Your task to perform on an android device: check storage Image 0: 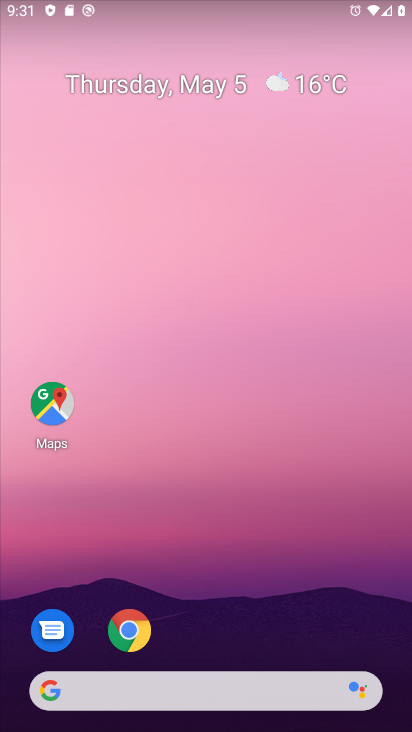
Step 0: drag from (278, 613) to (273, 81)
Your task to perform on an android device: check storage Image 1: 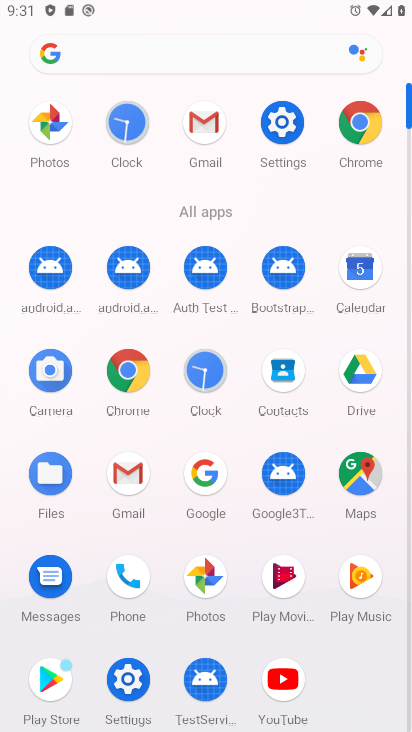
Step 1: click (272, 132)
Your task to perform on an android device: check storage Image 2: 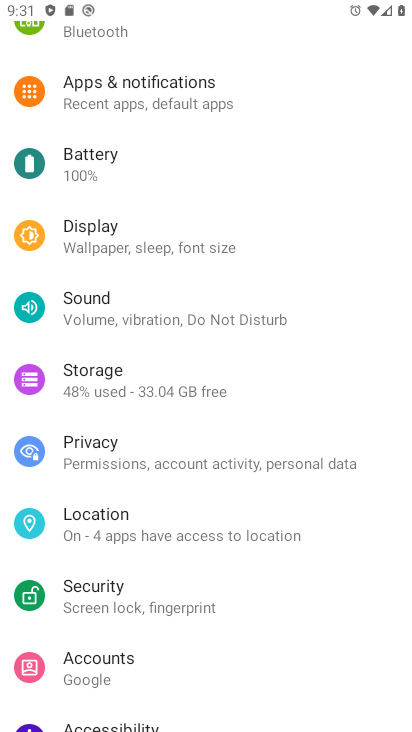
Step 2: drag from (201, 168) to (195, 625)
Your task to perform on an android device: check storage Image 3: 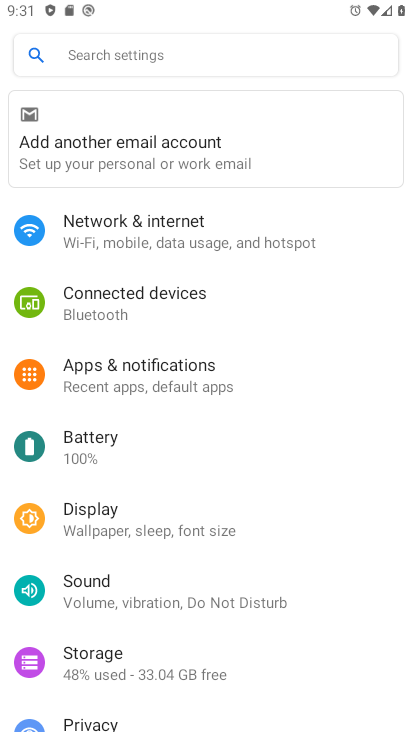
Step 3: drag from (130, 243) to (206, 674)
Your task to perform on an android device: check storage Image 4: 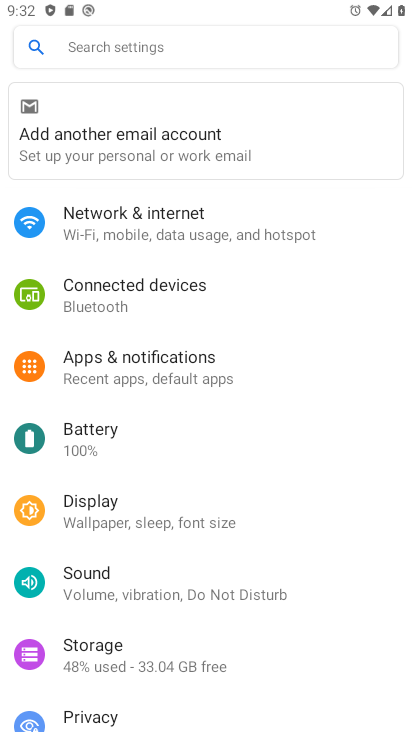
Step 4: click (195, 662)
Your task to perform on an android device: check storage Image 5: 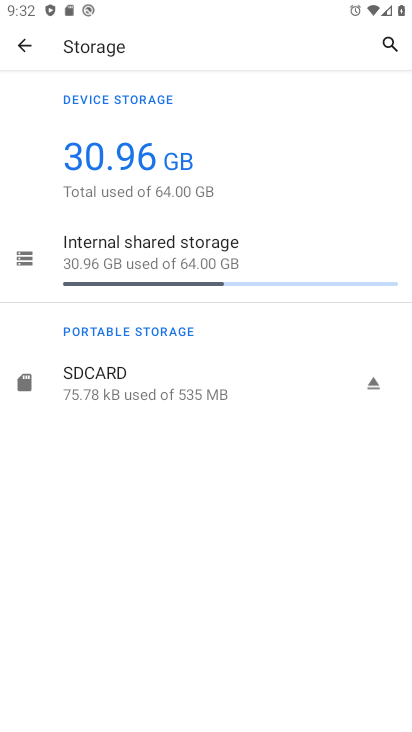
Step 5: task complete